Your task to perform on an android device: Go to location settings Image 0: 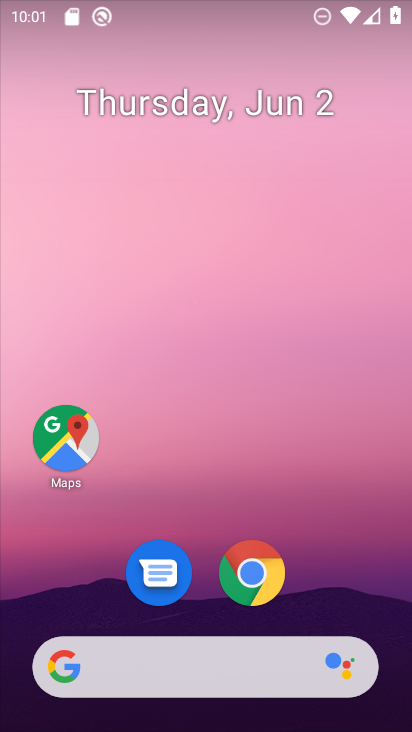
Step 0: drag from (342, 536) to (253, 153)
Your task to perform on an android device: Go to location settings Image 1: 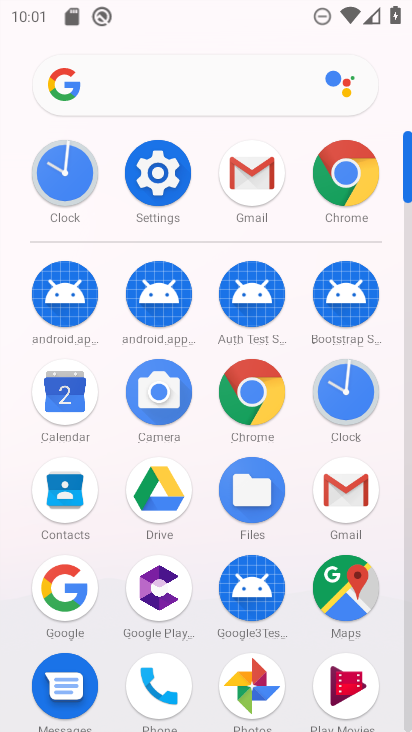
Step 1: click (150, 169)
Your task to perform on an android device: Go to location settings Image 2: 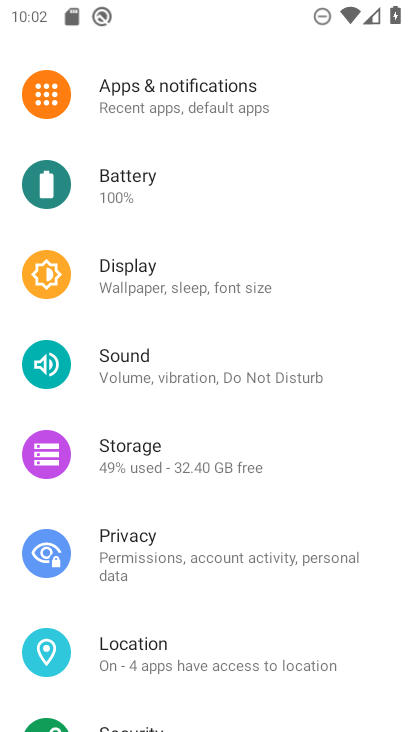
Step 2: drag from (235, 447) to (210, 150)
Your task to perform on an android device: Go to location settings Image 3: 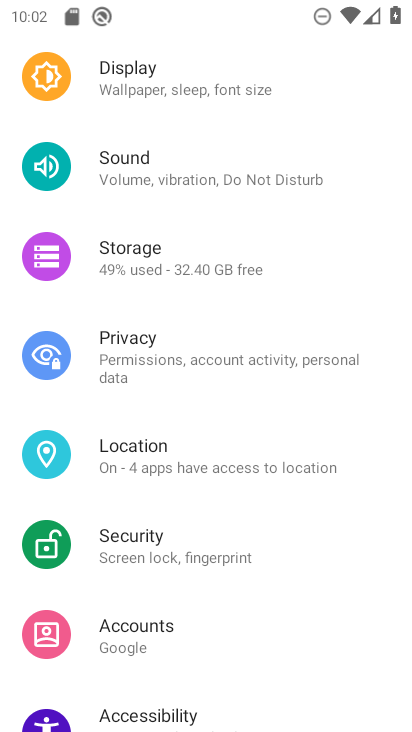
Step 3: click (158, 467)
Your task to perform on an android device: Go to location settings Image 4: 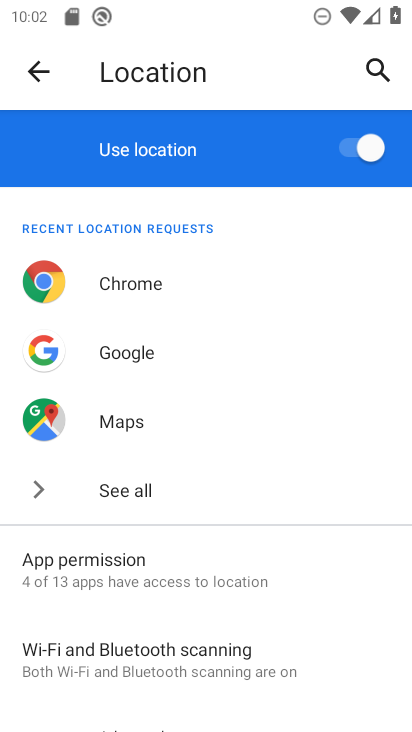
Step 4: task complete